Your task to perform on an android device: Search for Mexican restaurants on Maps Image 0: 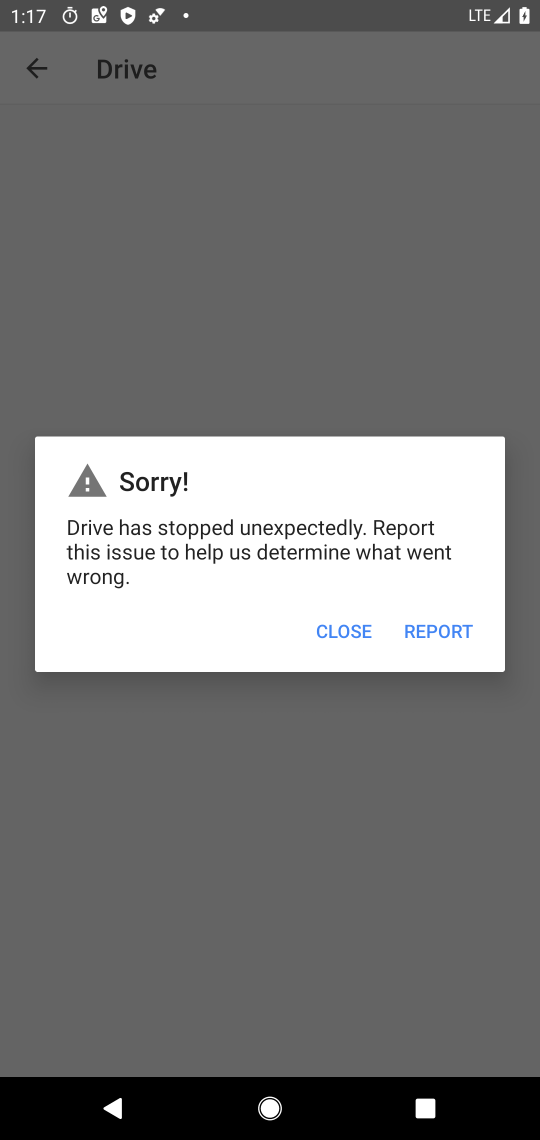
Step 0: press home button
Your task to perform on an android device: Search for Mexican restaurants on Maps Image 1: 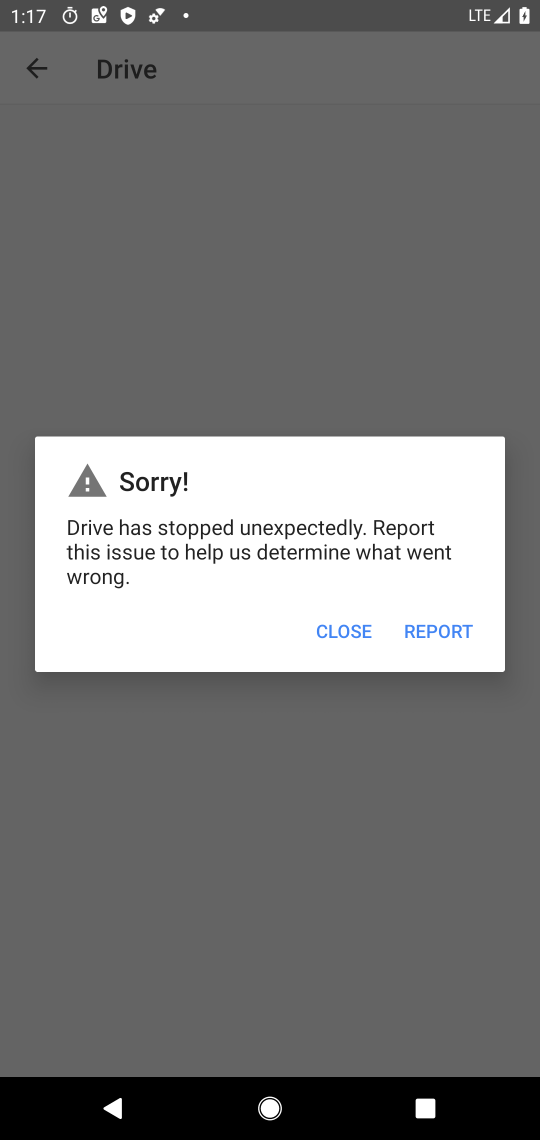
Step 1: press home button
Your task to perform on an android device: Search for Mexican restaurants on Maps Image 2: 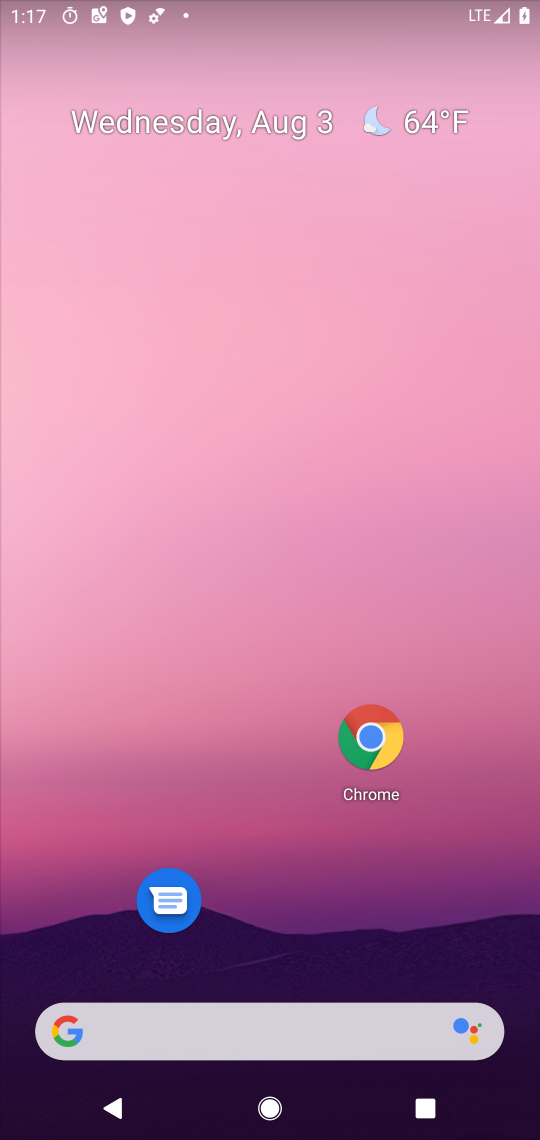
Step 2: drag from (307, 945) to (175, 68)
Your task to perform on an android device: Search for Mexican restaurants on Maps Image 3: 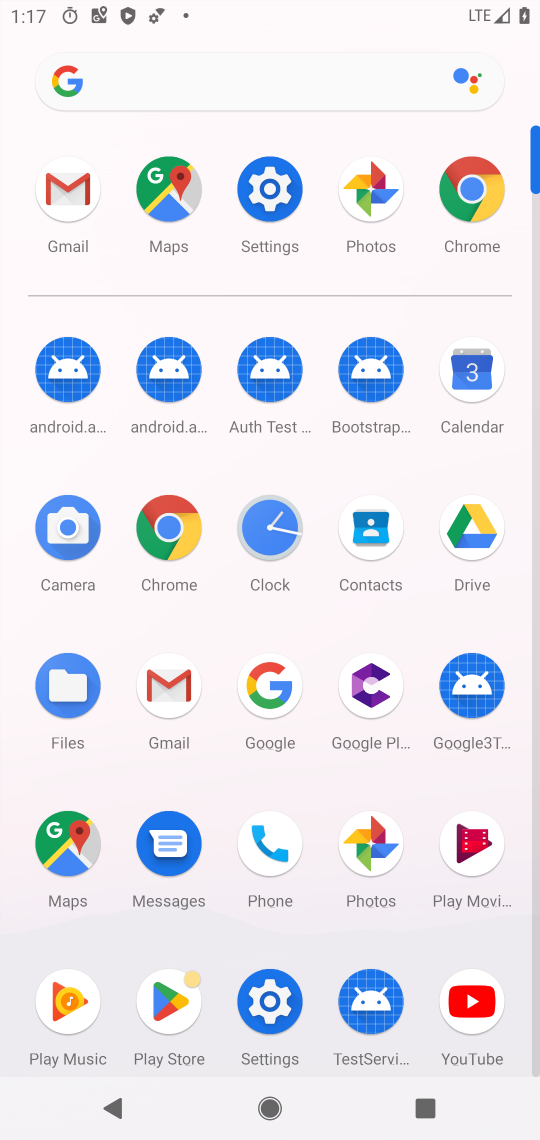
Step 3: click (63, 847)
Your task to perform on an android device: Search for Mexican restaurants on Maps Image 4: 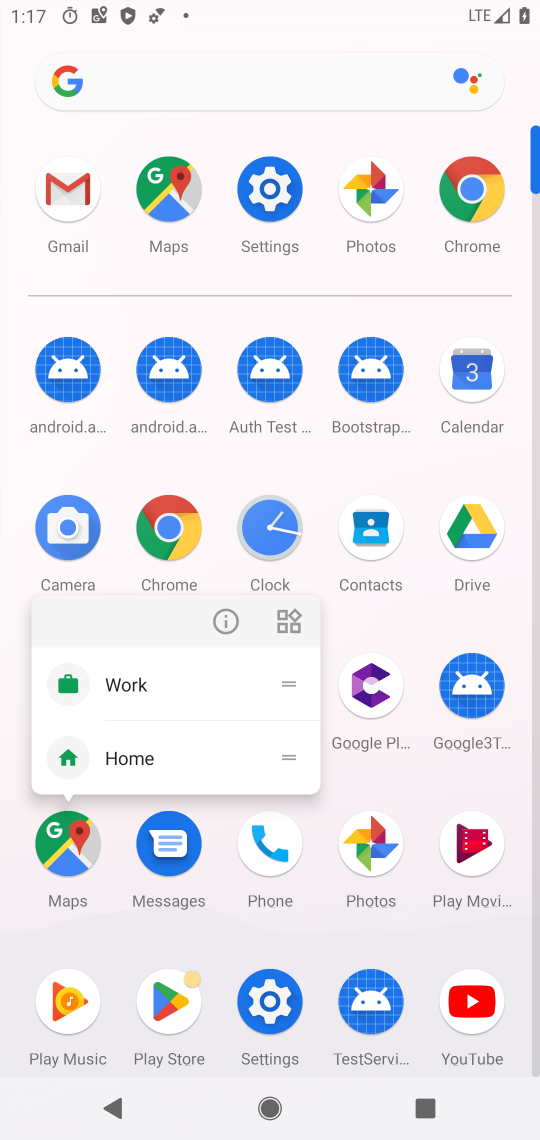
Step 4: click (63, 847)
Your task to perform on an android device: Search for Mexican restaurants on Maps Image 5: 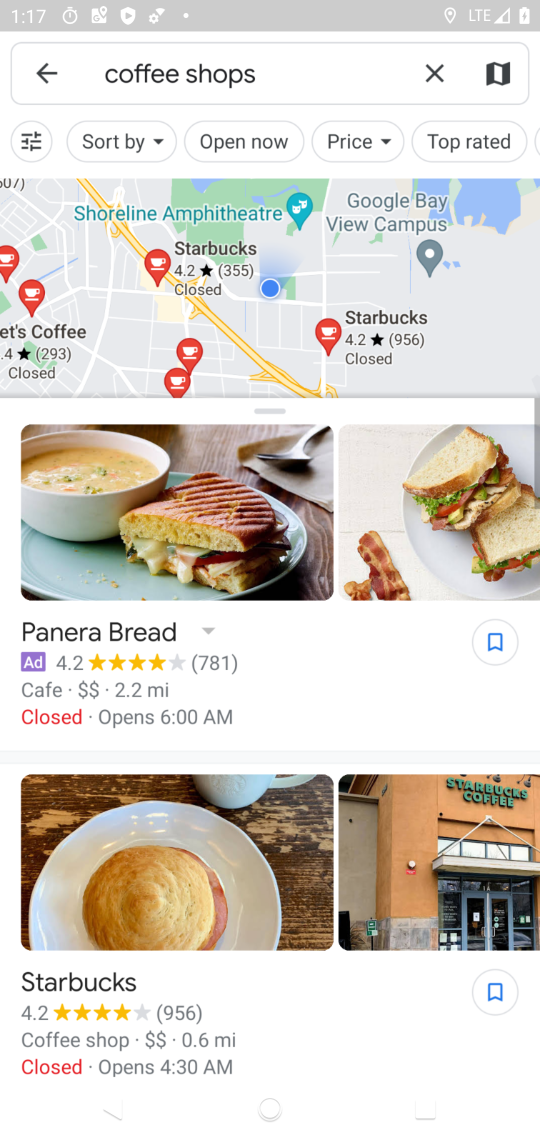
Step 5: click (315, 69)
Your task to perform on an android device: Search for Mexican restaurants on Maps Image 6: 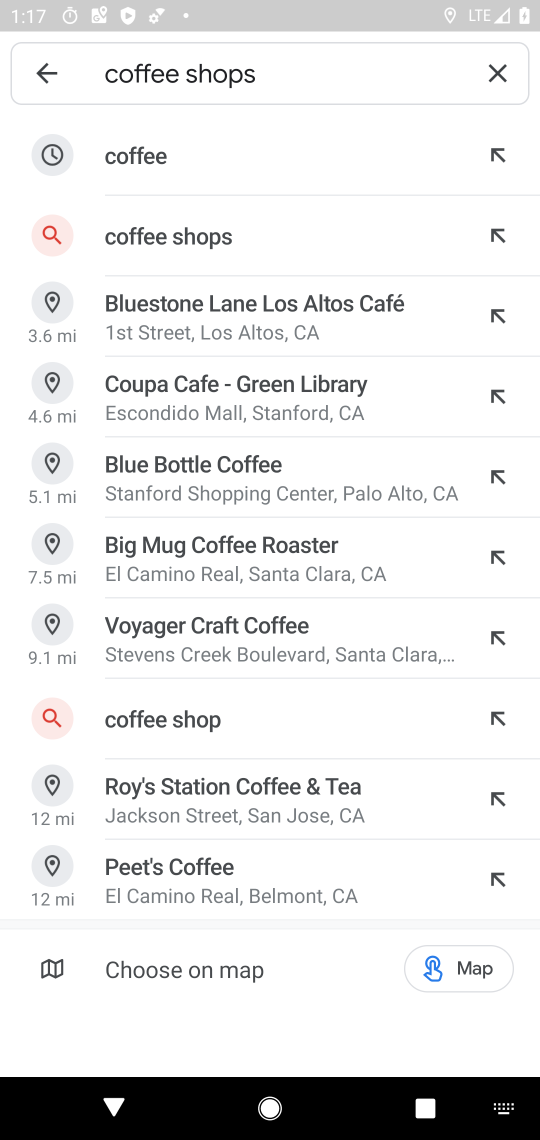
Step 6: click (504, 71)
Your task to perform on an android device: Search for Mexican restaurants on Maps Image 7: 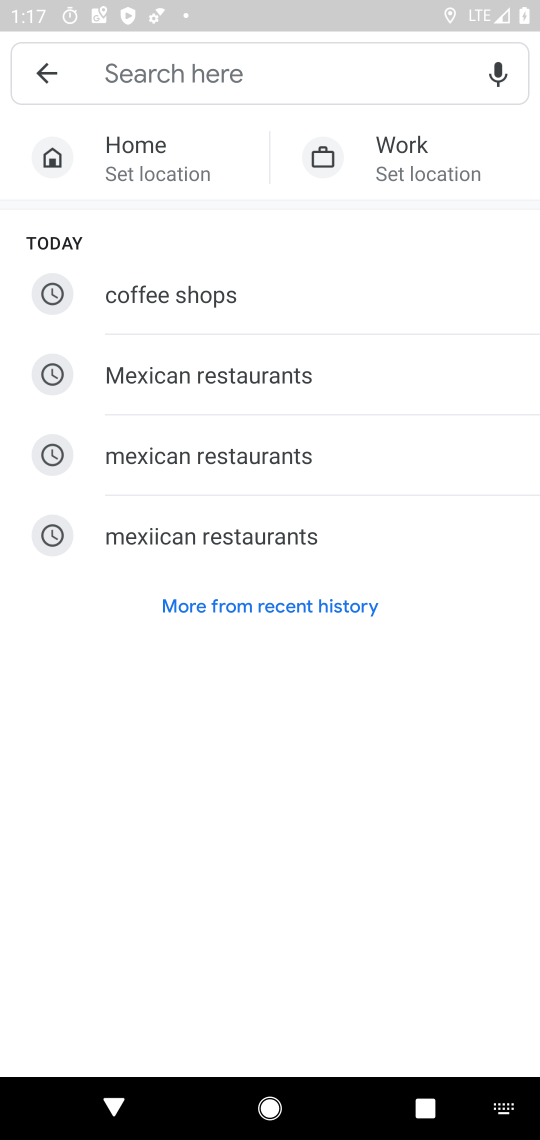
Step 7: click (303, 383)
Your task to perform on an android device: Search for Mexican restaurants on Maps Image 8: 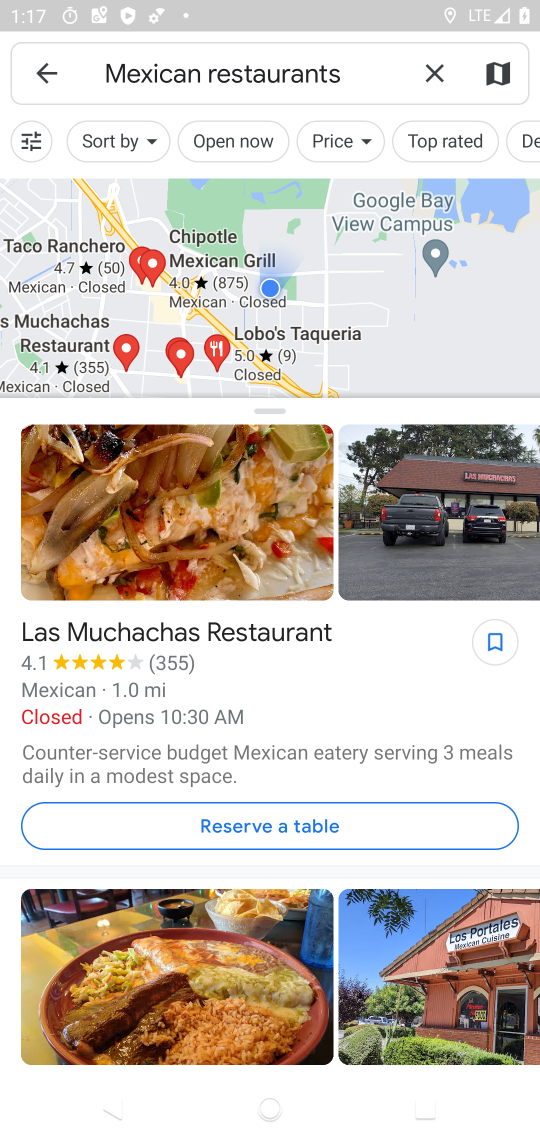
Step 8: task complete